Your task to perform on an android device: open a bookmark in the chrome app Image 0: 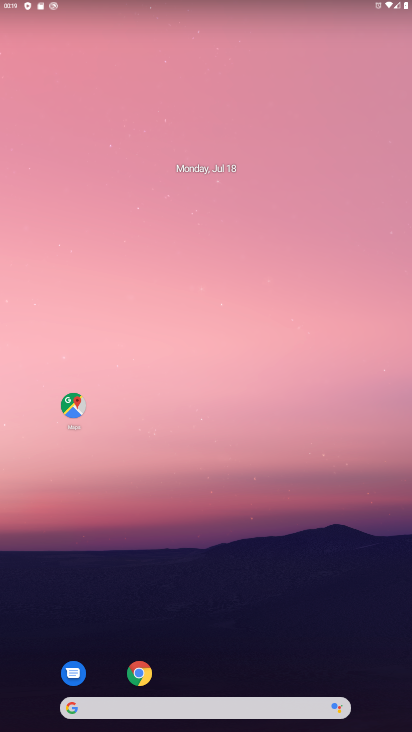
Step 0: click (140, 674)
Your task to perform on an android device: open a bookmark in the chrome app Image 1: 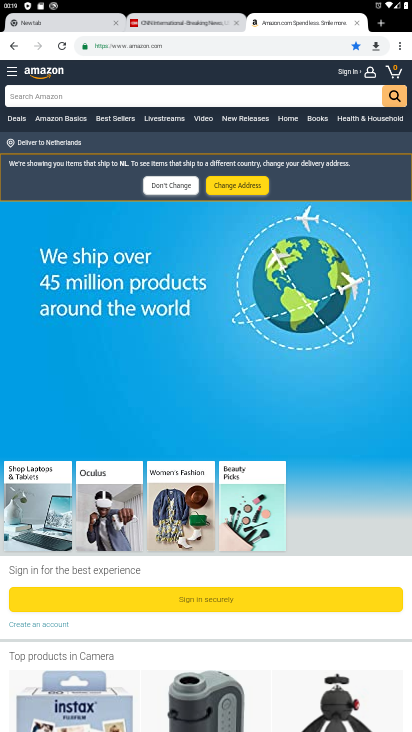
Step 1: click (401, 44)
Your task to perform on an android device: open a bookmark in the chrome app Image 2: 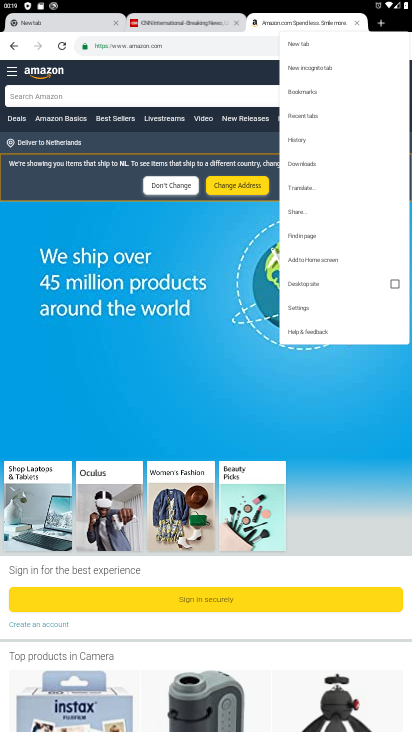
Step 2: click (315, 96)
Your task to perform on an android device: open a bookmark in the chrome app Image 3: 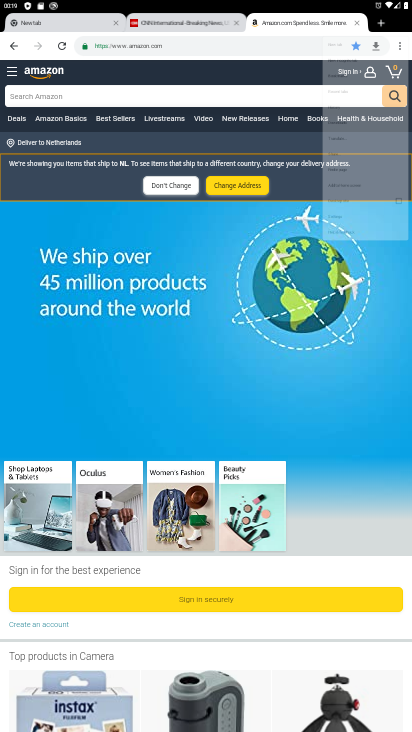
Step 3: task complete